Your task to perform on an android device: move an email to a new category in the gmail app Image 0: 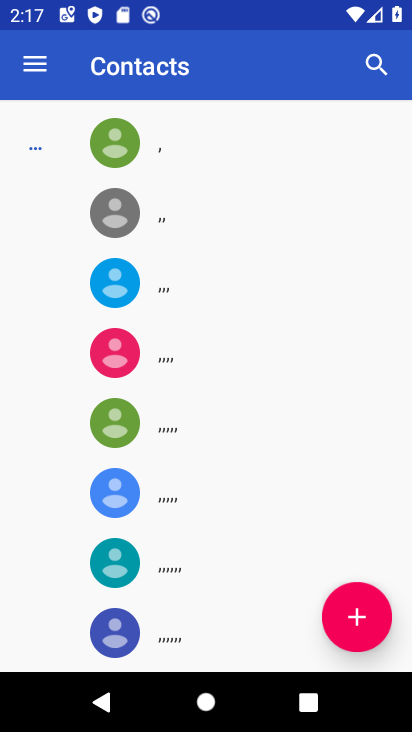
Step 0: press back button
Your task to perform on an android device: move an email to a new category in the gmail app Image 1: 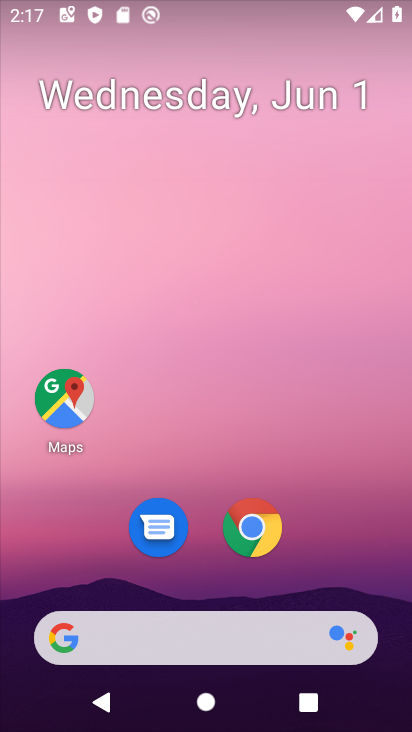
Step 1: drag from (346, 579) to (252, 137)
Your task to perform on an android device: move an email to a new category in the gmail app Image 2: 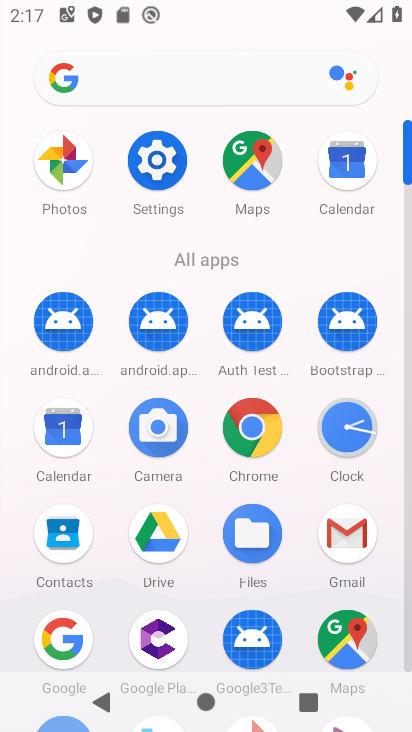
Step 2: click (343, 529)
Your task to perform on an android device: move an email to a new category in the gmail app Image 3: 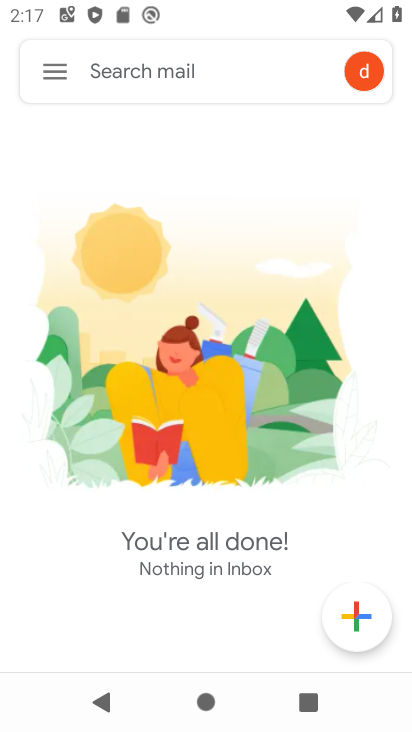
Step 3: click (58, 73)
Your task to perform on an android device: move an email to a new category in the gmail app Image 4: 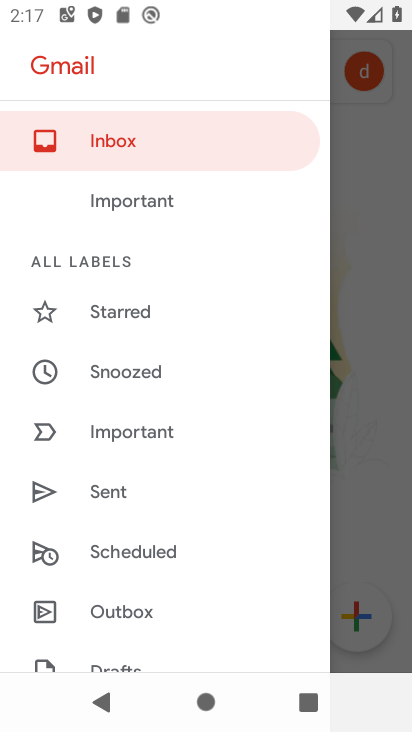
Step 4: task complete